Your task to perform on an android device: find which apps use the phone's location Image 0: 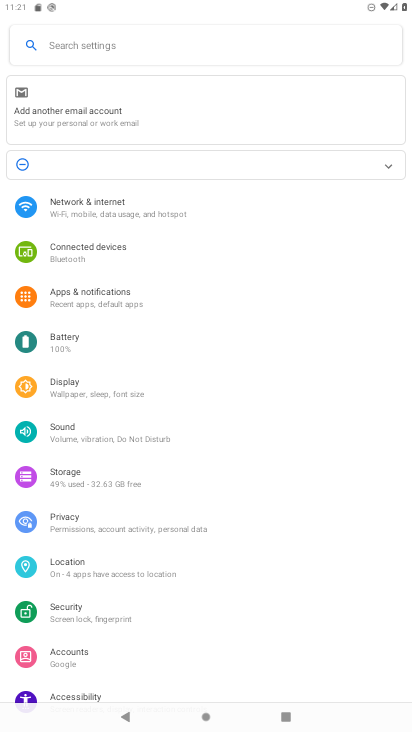
Step 0: press home button
Your task to perform on an android device: find which apps use the phone's location Image 1: 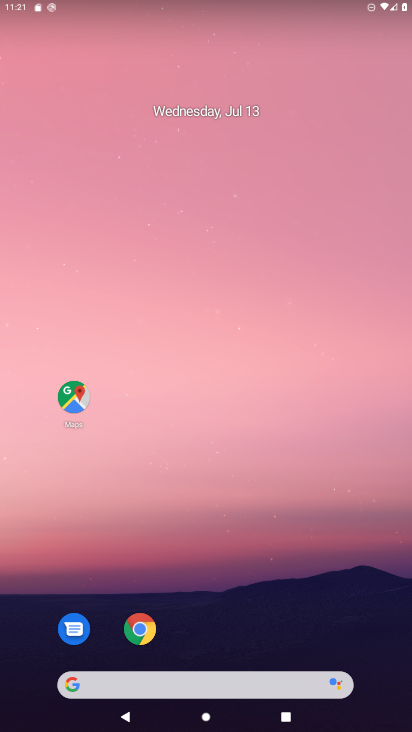
Step 1: drag from (385, 594) to (320, 179)
Your task to perform on an android device: find which apps use the phone's location Image 2: 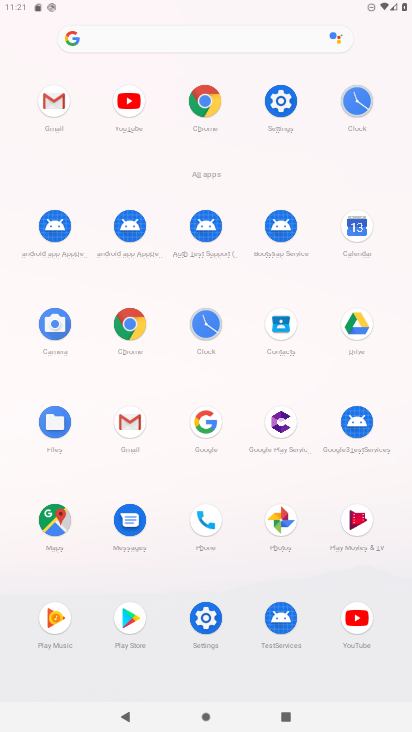
Step 2: click (270, 102)
Your task to perform on an android device: find which apps use the phone's location Image 3: 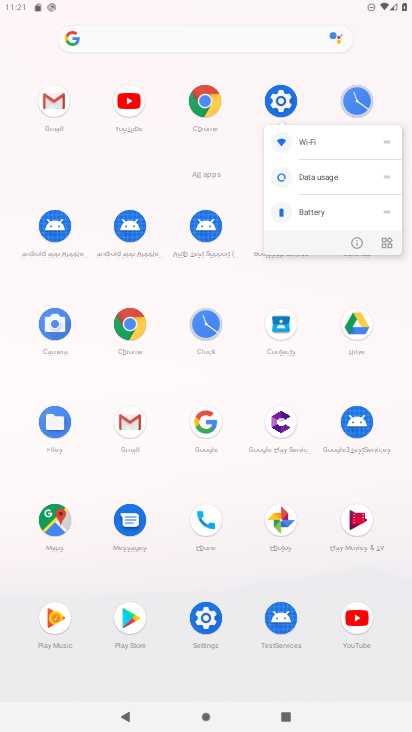
Step 3: click (288, 95)
Your task to perform on an android device: find which apps use the phone's location Image 4: 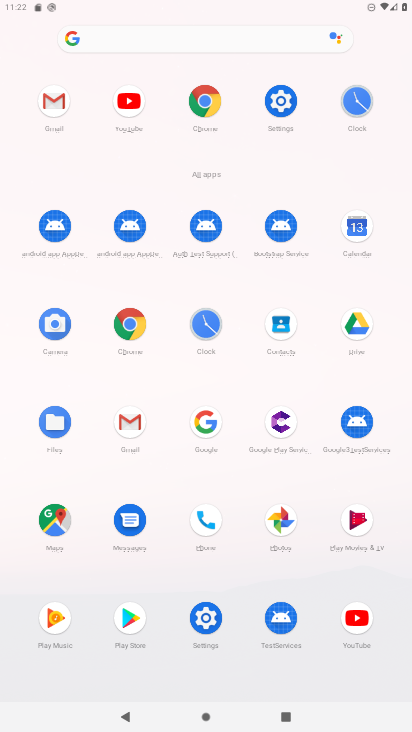
Step 4: click (279, 105)
Your task to perform on an android device: find which apps use the phone's location Image 5: 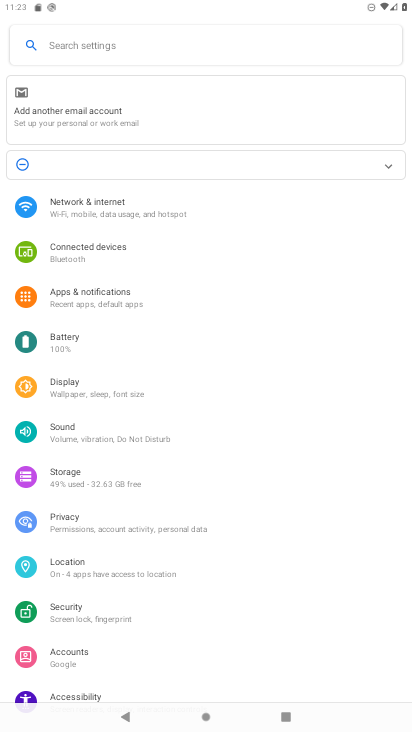
Step 5: click (79, 567)
Your task to perform on an android device: find which apps use the phone's location Image 6: 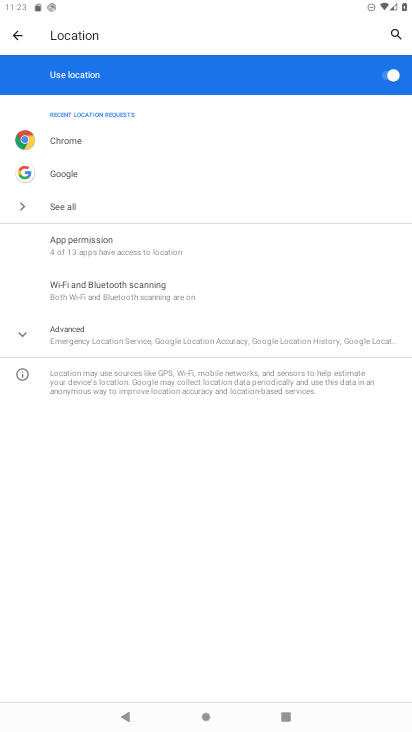
Step 6: click (65, 240)
Your task to perform on an android device: find which apps use the phone's location Image 7: 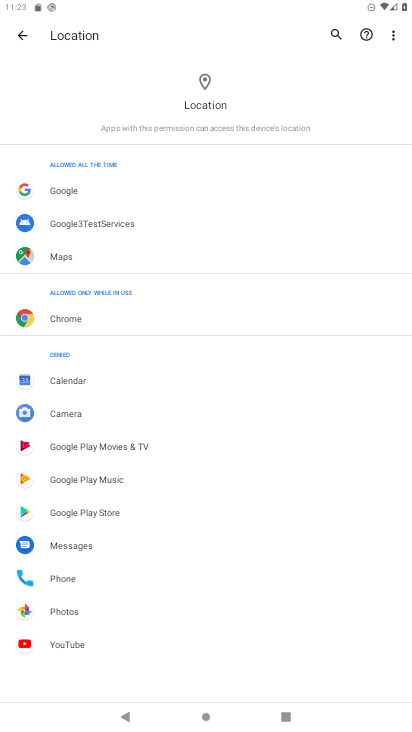
Step 7: task complete